Your task to perform on an android device: check out phone information Image 0: 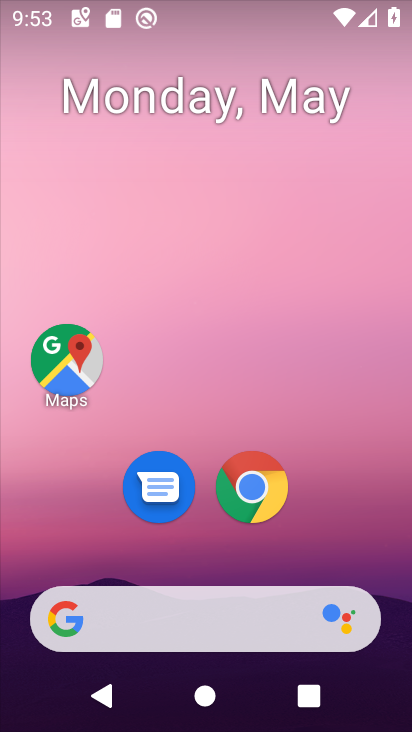
Step 0: drag from (338, 552) to (338, 1)
Your task to perform on an android device: check out phone information Image 1: 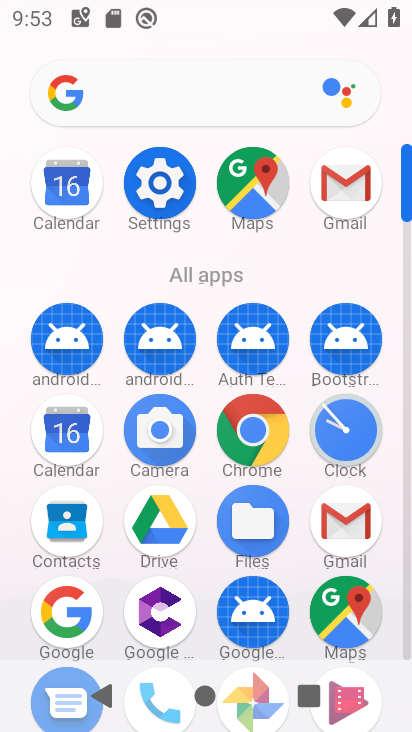
Step 1: click (146, 191)
Your task to perform on an android device: check out phone information Image 2: 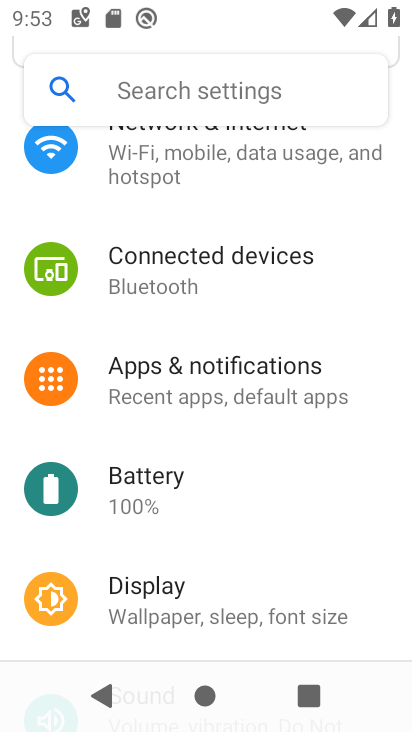
Step 2: drag from (176, 528) to (194, 368)
Your task to perform on an android device: check out phone information Image 3: 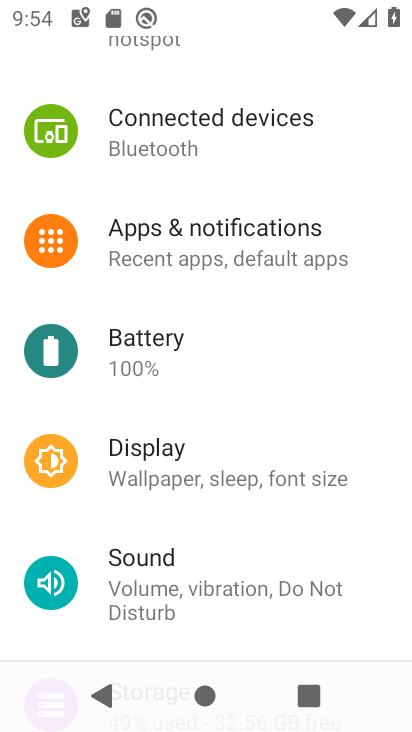
Step 3: drag from (225, 543) to (225, 400)
Your task to perform on an android device: check out phone information Image 4: 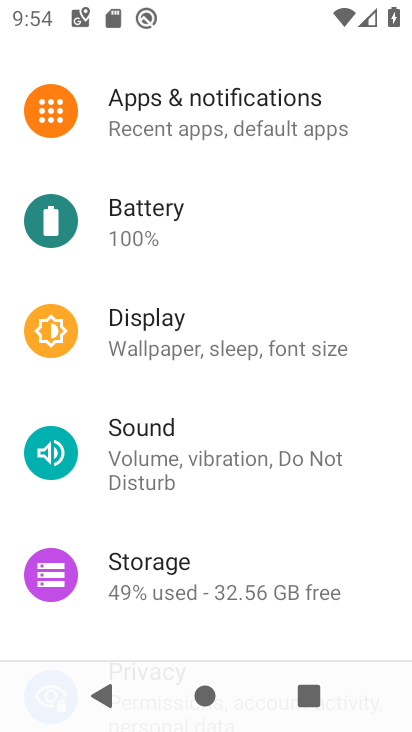
Step 4: drag from (234, 507) to (232, 313)
Your task to perform on an android device: check out phone information Image 5: 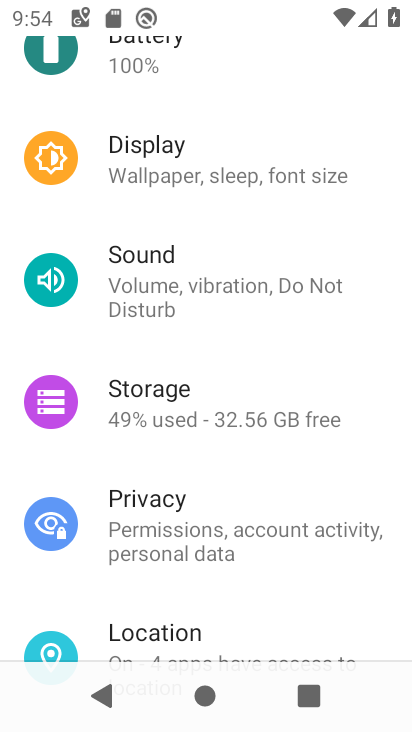
Step 5: drag from (225, 621) to (221, 467)
Your task to perform on an android device: check out phone information Image 6: 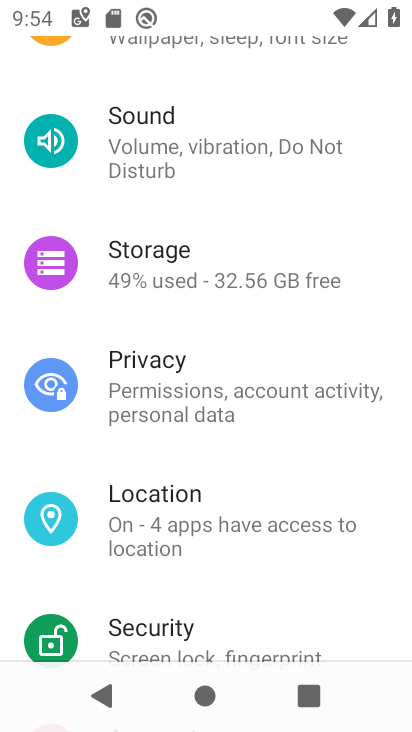
Step 6: drag from (240, 609) to (247, 507)
Your task to perform on an android device: check out phone information Image 7: 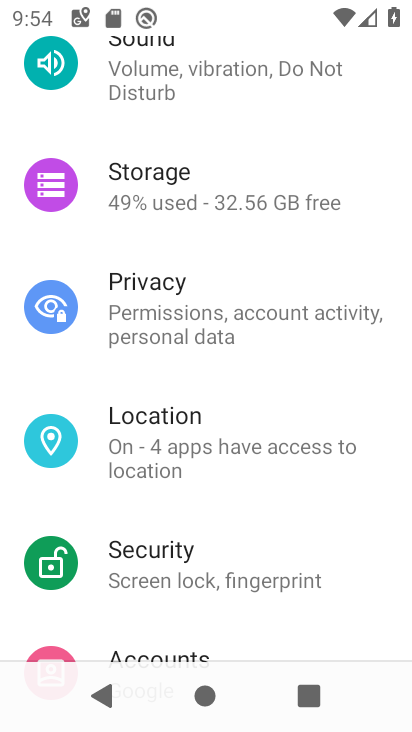
Step 7: drag from (237, 598) to (237, 424)
Your task to perform on an android device: check out phone information Image 8: 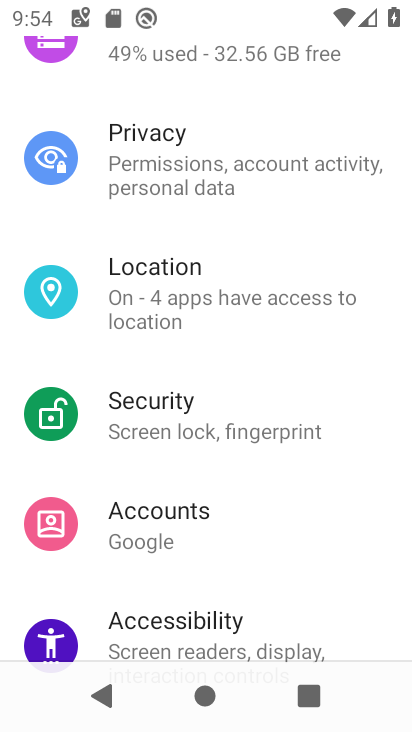
Step 8: drag from (231, 563) to (242, 419)
Your task to perform on an android device: check out phone information Image 9: 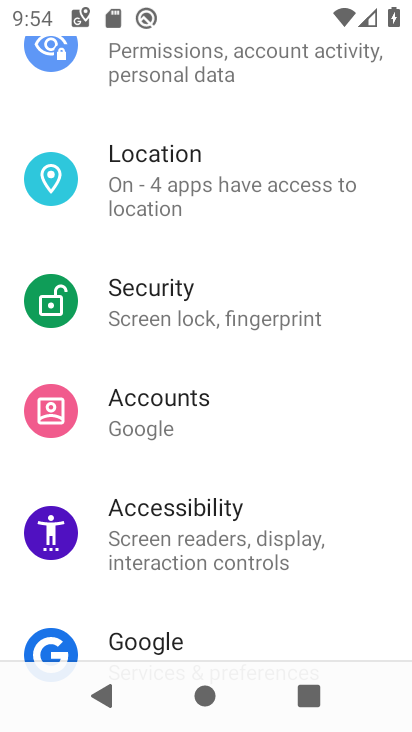
Step 9: click (281, 453)
Your task to perform on an android device: check out phone information Image 10: 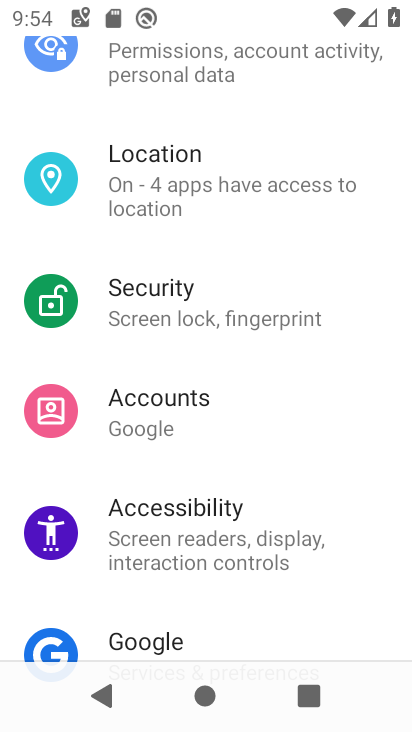
Step 10: drag from (302, 534) to (313, 312)
Your task to perform on an android device: check out phone information Image 11: 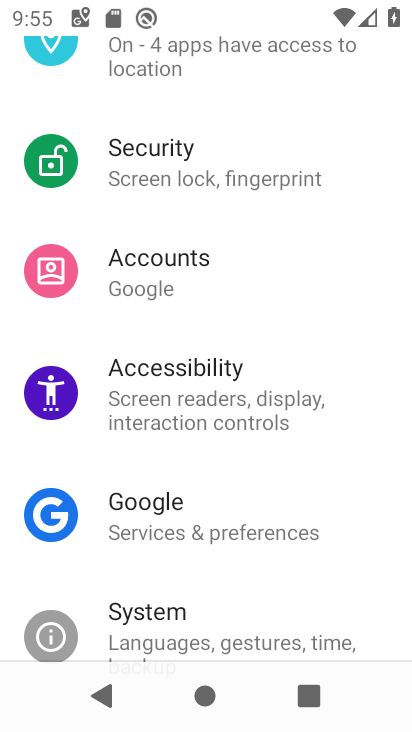
Step 11: drag from (263, 581) to (270, 351)
Your task to perform on an android device: check out phone information Image 12: 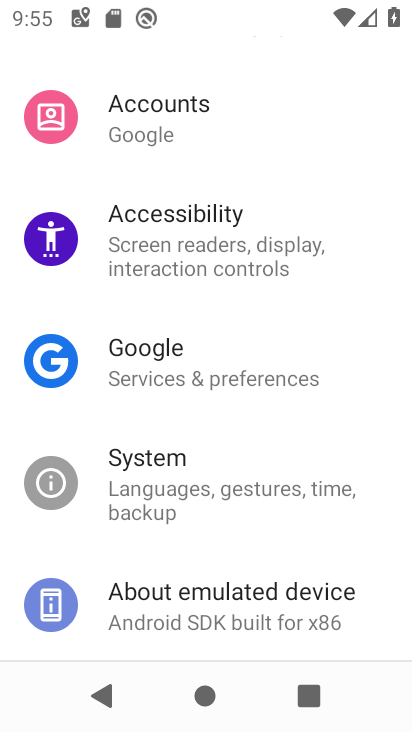
Step 12: click (211, 601)
Your task to perform on an android device: check out phone information Image 13: 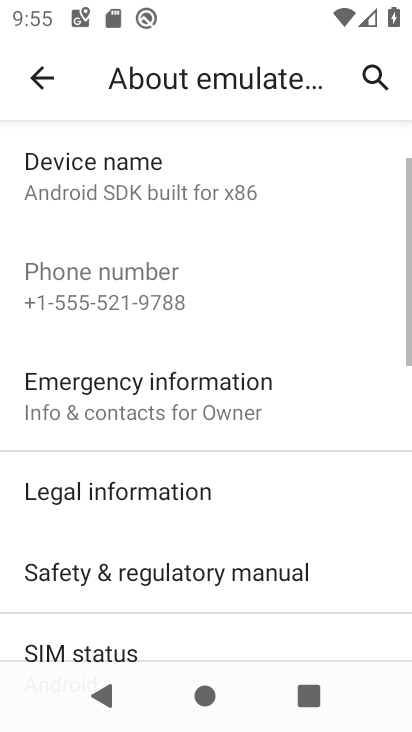
Step 13: task complete